Your task to perform on an android device: toggle wifi Image 0: 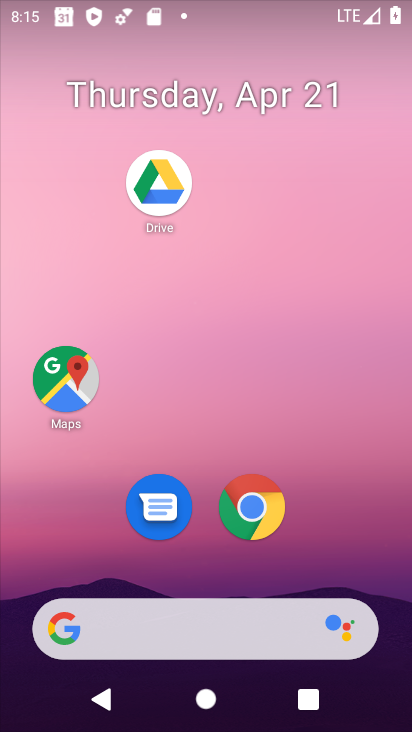
Step 0: drag from (374, 512) to (354, 156)
Your task to perform on an android device: toggle wifi Image 1: 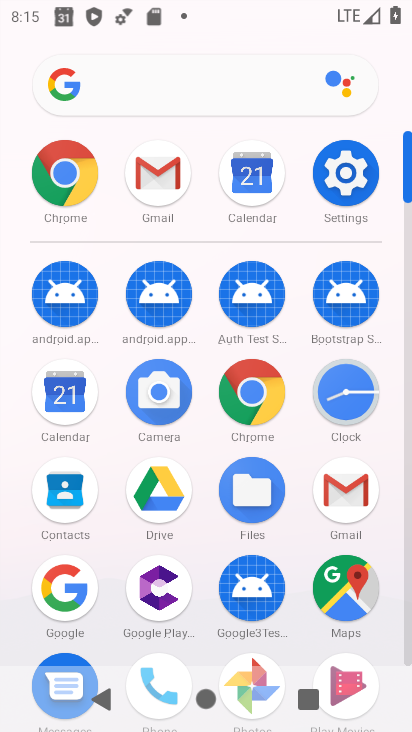
Step 1: click (356, 183)
Your task to perform on an android device: toggle wifi Image 2: 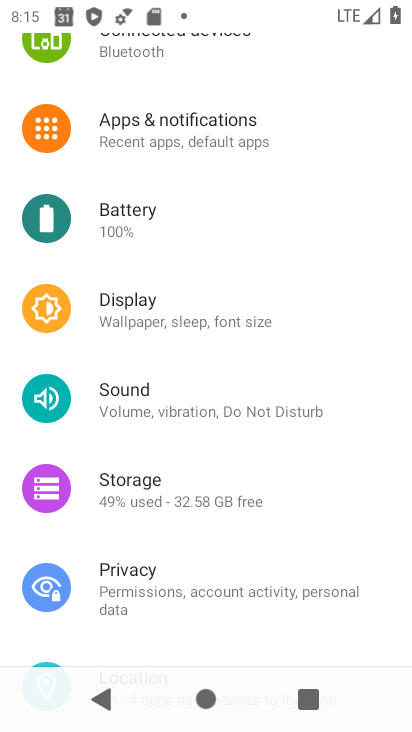
Step 2: drag from (362, 508) to (338, 331)
Your task to perform on an android device: toggle wifi Image 3: 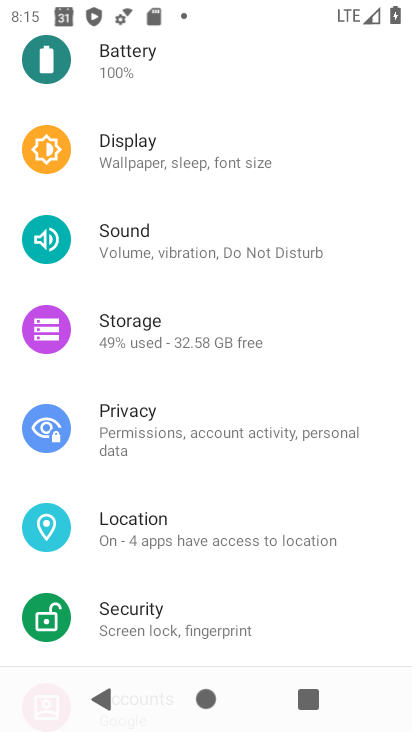
Step 3: drag from (362, 606) to (369, 332)
Your task to perform on an android device: toggle wifi Image 4: 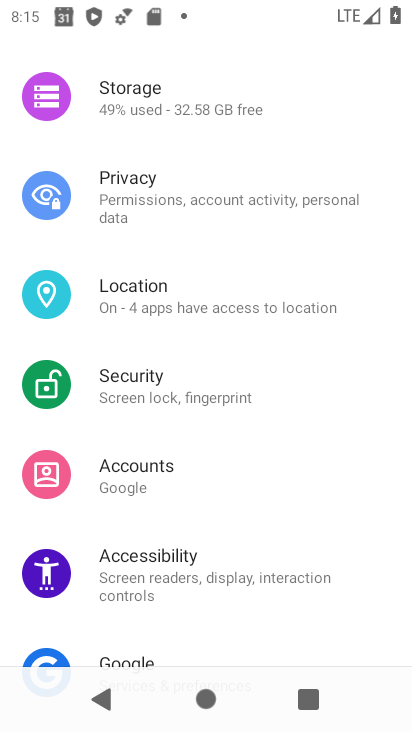
Step 4: drag from (359, 276) to (364, 401)
Your task to perform on an android device: toggle wifi Image 5: 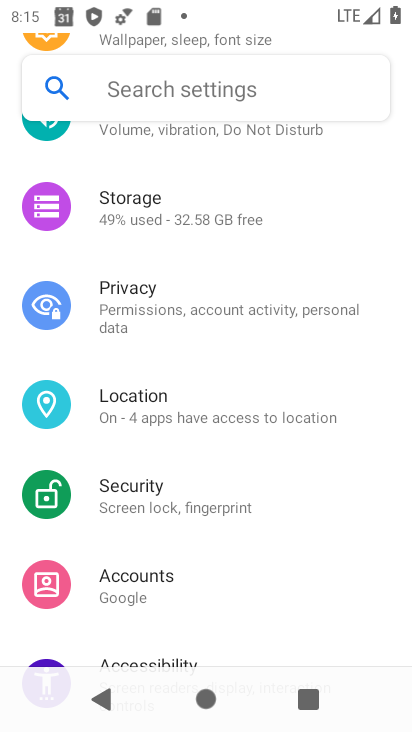
Step 5: drag from (375, 273) to (372, 418)
Your task to perform on an android device: toggle wifi Image 6: 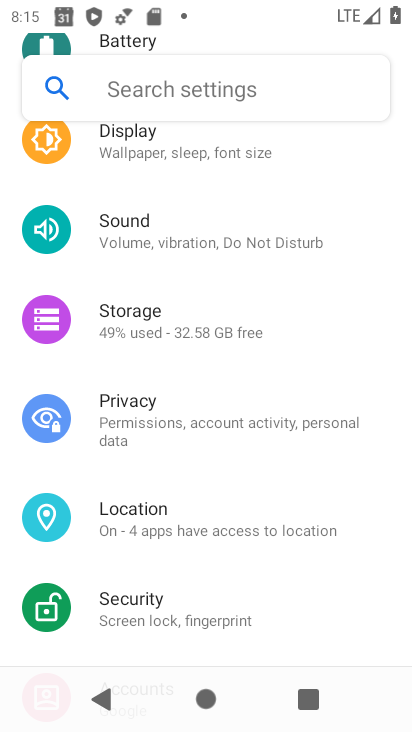
Step 6: drag from (378, 277) to (372, 425)
Your task to perform on an android device: toggle wifi Image 7: 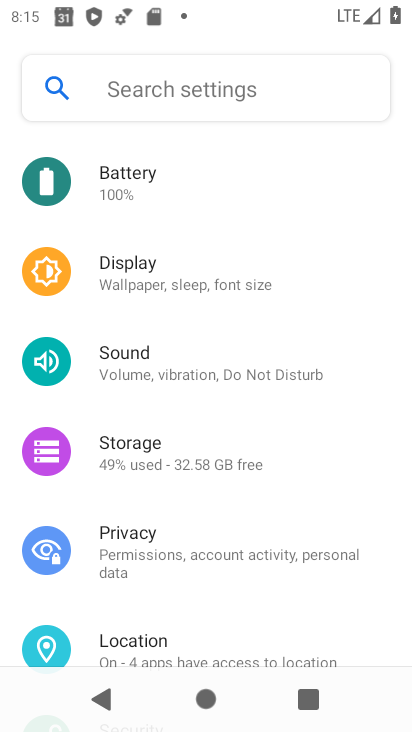
Step 7: drag from (365, 274) to (351, 419)
Your task to perform on an android device: toggle wifi Image 8: 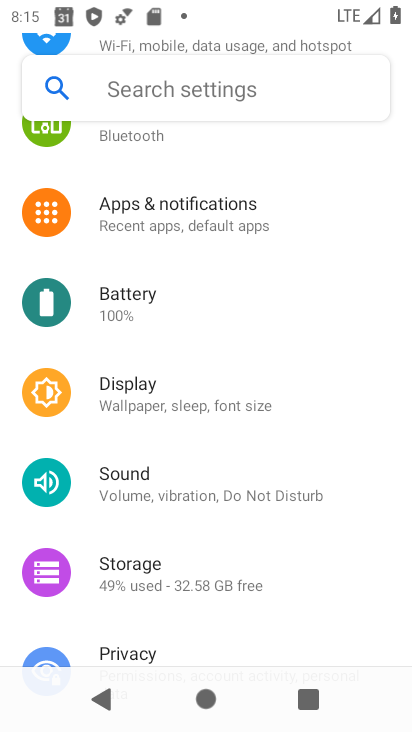
Step 8: drag from (343, 262) to (346, 422)
Your task to perform on an android device: toggle wifi Image 9: 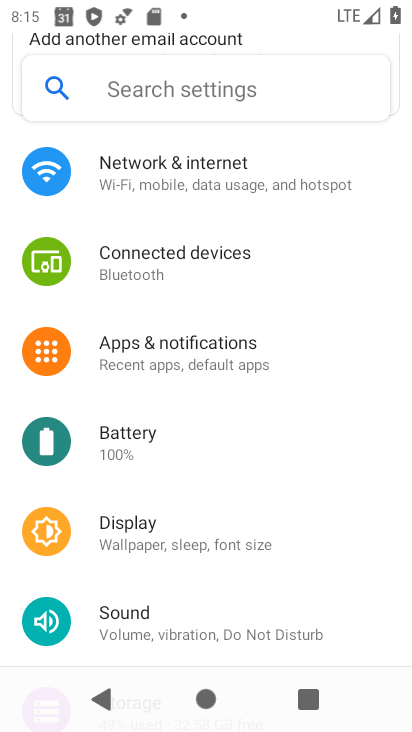
Step 9: drag from (350, 276) to (353, 401)
Your task to perform on an android device: toggle wifi Image 10: 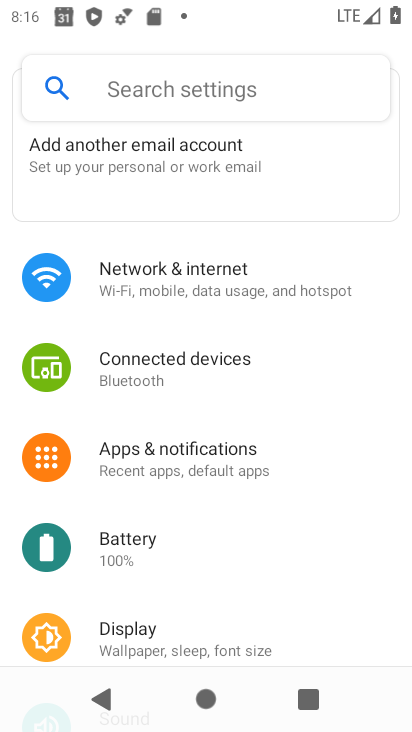
Step 10: click (265, 286)
Your task to perform on an android device: toggle wifi Image 11: 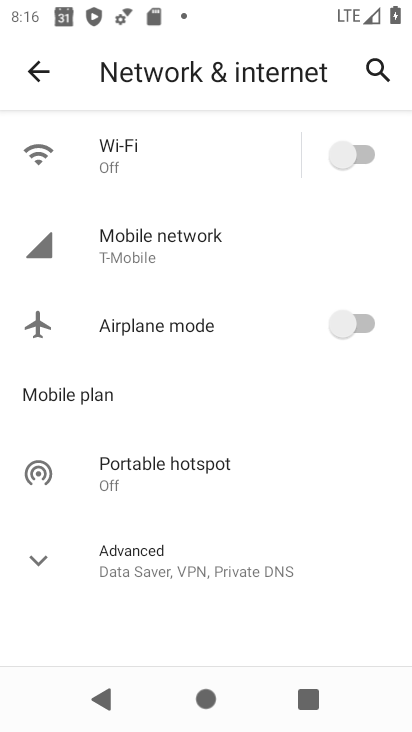
Step 11: click (342, 158)
Your task to perform on an android device: toggle wifi Image 12: 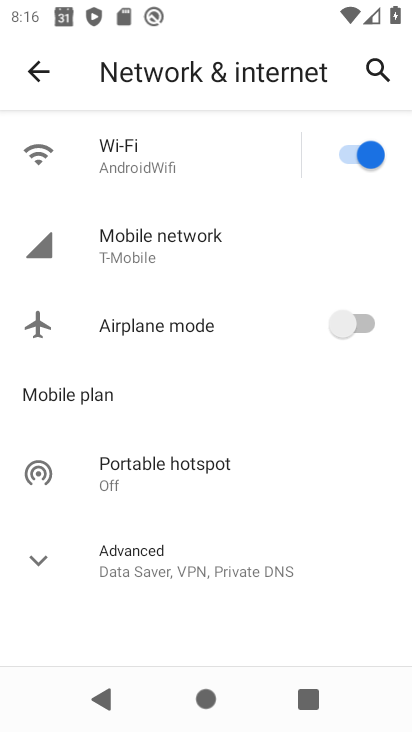
Step 12: task complete